Your task to perform on an android device: Clear all items from cart on amazon.com. Search for "logitech g pro" on amazon.com, select the first entry, and add it to the cart. Image 0: 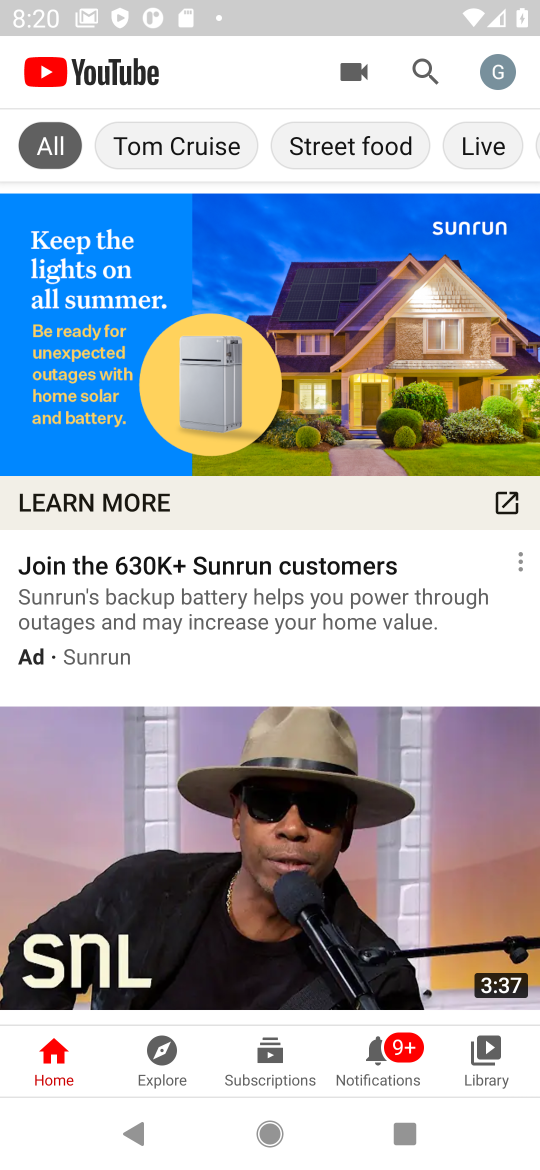
Step 0: press home button
Your task to perform on an android device: Clear all items from cart on amazon.com. Search for "logitech g pro" on amazon.com, select the first entry, and add it to the cart. Image 1: 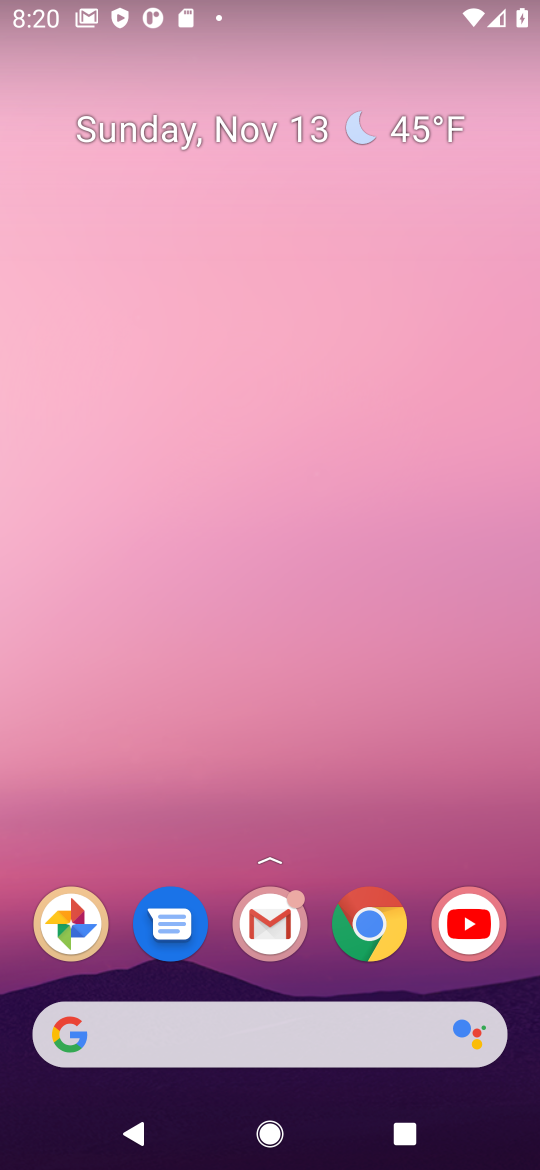
Step 1: click (369, 939)
Your task to perform on an android device: Clear all items from cart on amazon.com. Search for "logitech g pro" on amazon.com, select the first entry, and add it to the cart. Image 2: 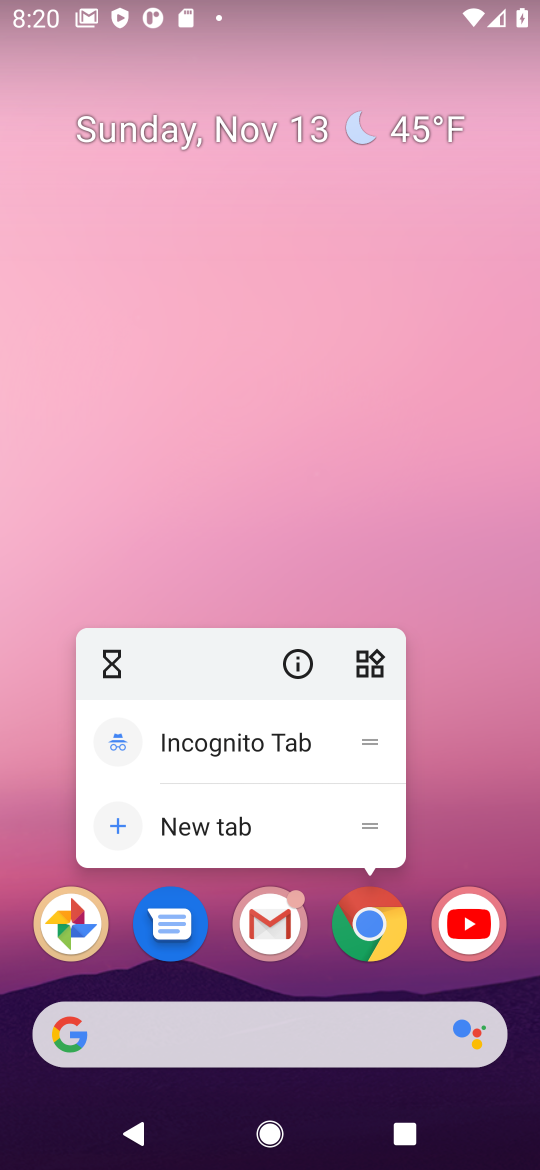
Step 2: click (367, 917)
Your task to perform on an android device: Clear all items from cart on amazon.com. Search for "logitech g pro" on amazon.com, select the first entry, and add it to the cart. Image 3: 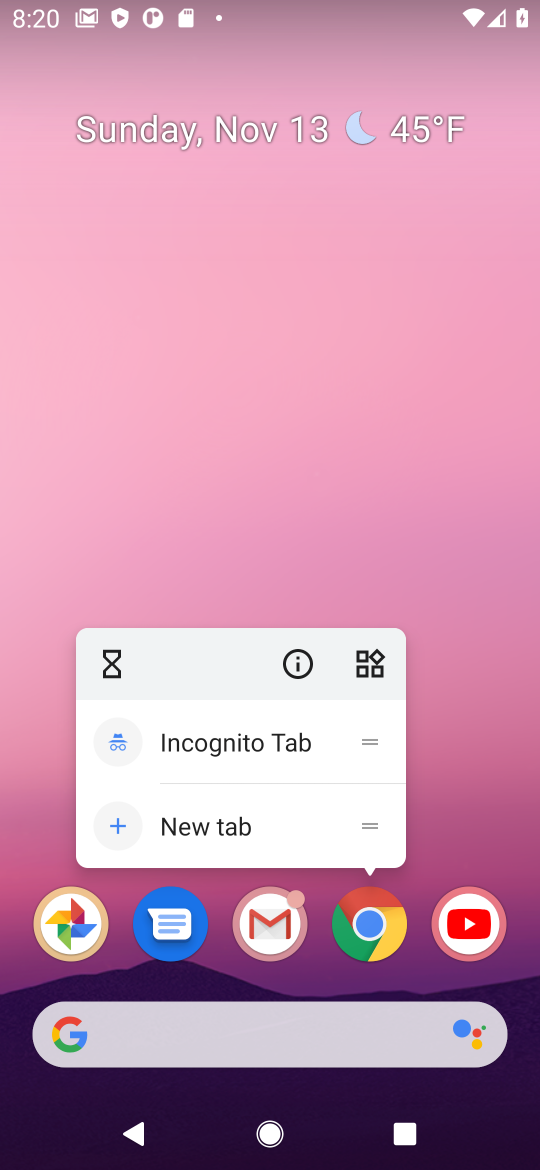
Step 3: click (367, 922)
Your task to perform on an android device: Clear all items from cart on amazon.com. Search for "logitech g pro" on amazon.com, select the first entry, and add it to the cart. Image 4: 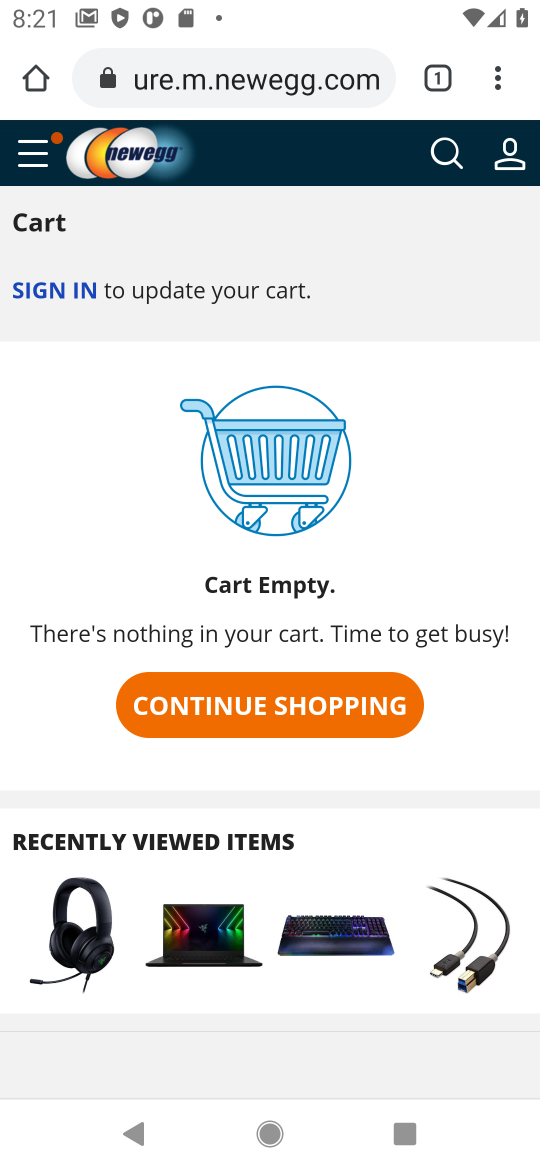
Step 4: click (287, 76)
Your task to perform on an android device: Clear all items from cart on amazon.com. Search for "logitech g pro" on amazon.com, select the first entry, and add it to the cart. Image 5: 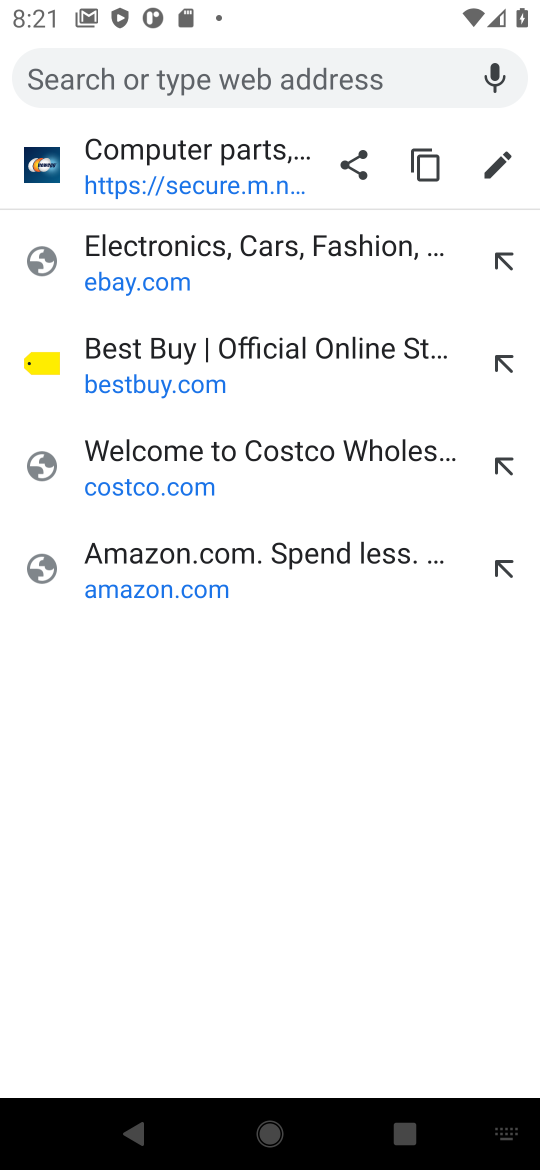
Step 5: type "amazon.com"
Your task to perform on an android device: Clear all items from cart on amazon.com. Search for "logitech g pro" on amazon.com, select the first entry, and add it to the cart. Image 6: 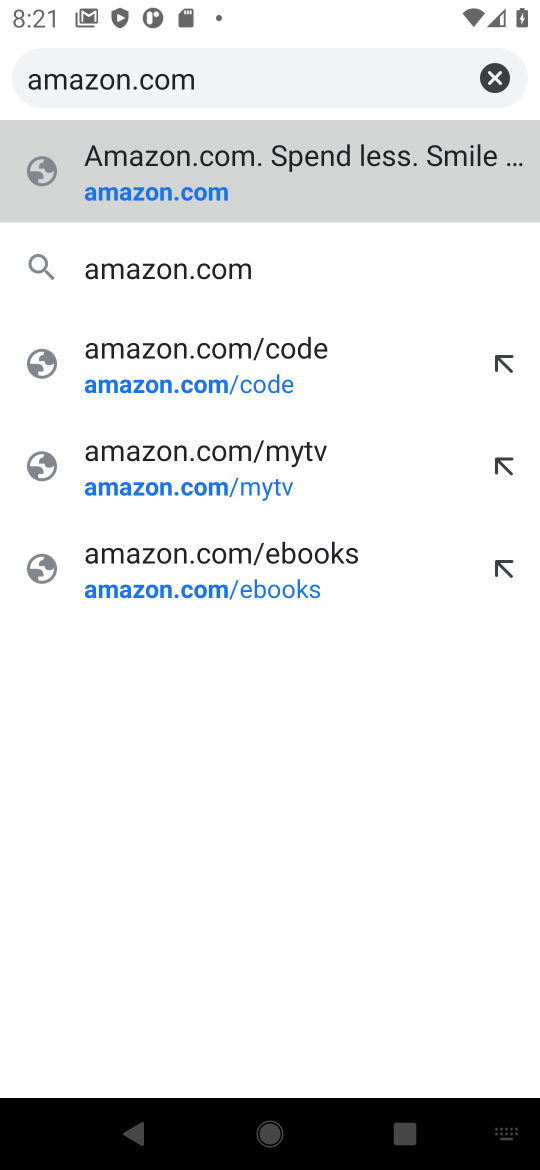
Step 6: press enter
Your task to perform on an android device: Clear all items from cart on amazon.com. Search for "logitech g pro" on amazon.com, select the first entry, and add it to the cart. Image 7: 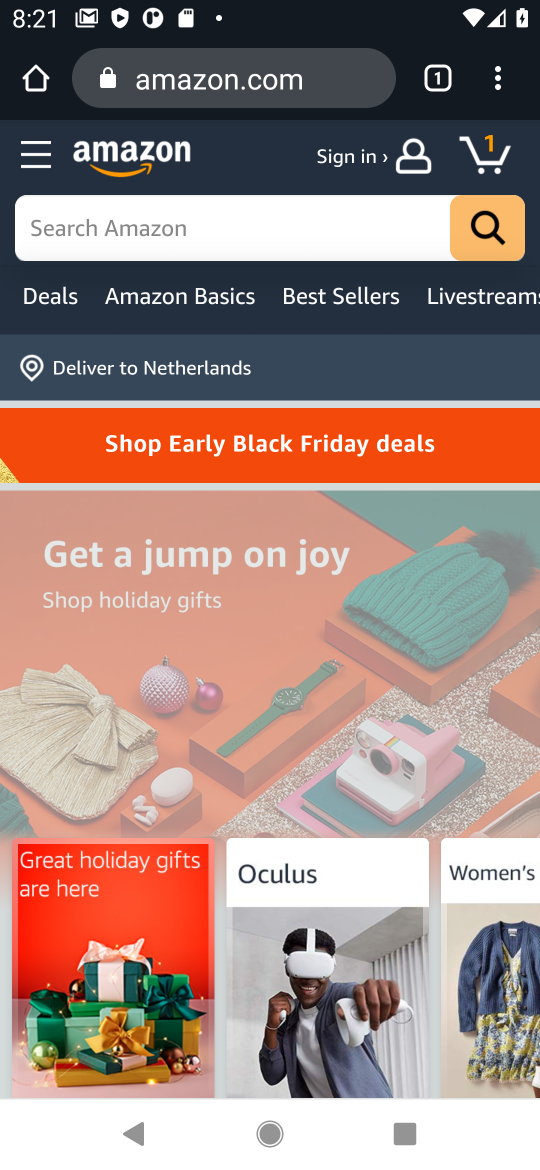
Step 7: click (131, 235)
Your task to perform on an android device: Clear all items from cart on amazon.com. Search for "logitech g pro" on amazon.com, select the first entry, and add it to the cart. Image 8: 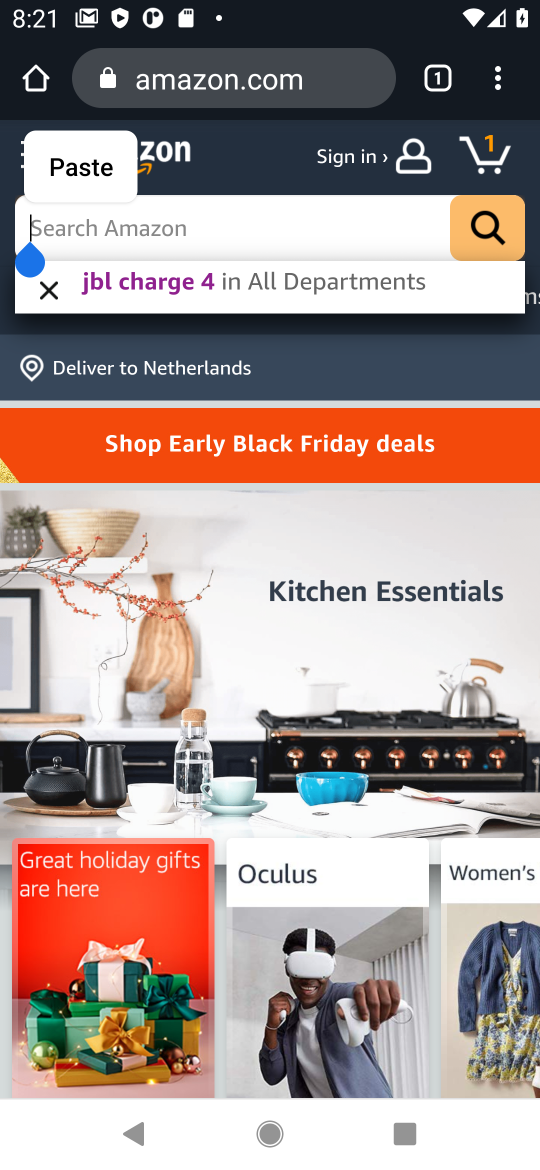
Step 8: press enter
Your task to perform on an android device: Clear all items from cart on amazon.com. Search for "logitech g pro" on amazon.com, select the first entry, and add it to the cart. Image 9: 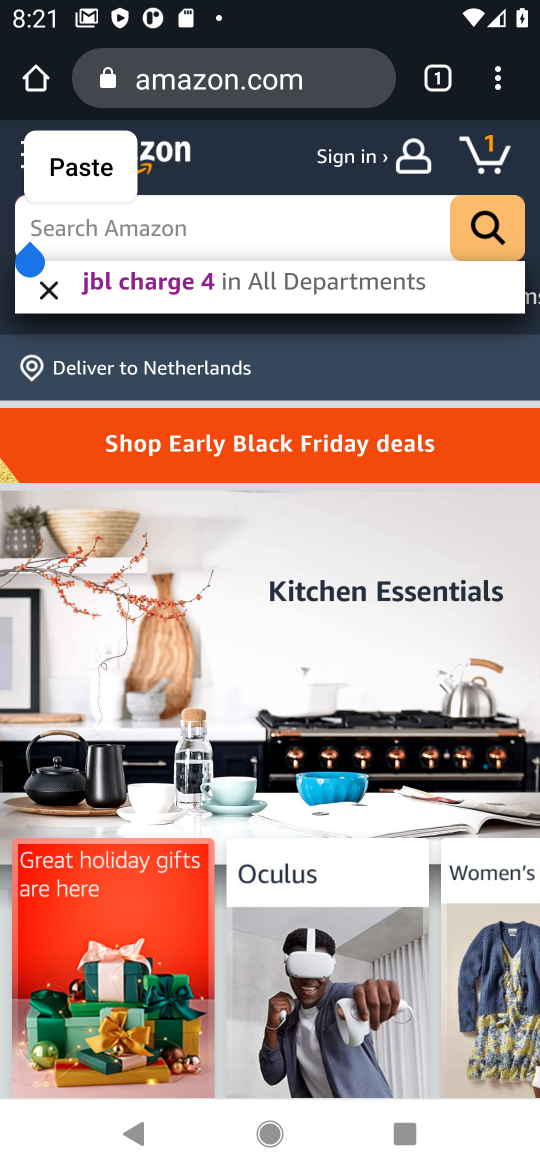
Step 9: type "logitech g pro"
Your task to perform on an android device: Clear all items from cart on amazon.com. Search for "logitech g pro" on amazon.com, select the first entry, and add it to the cart. Image 10: 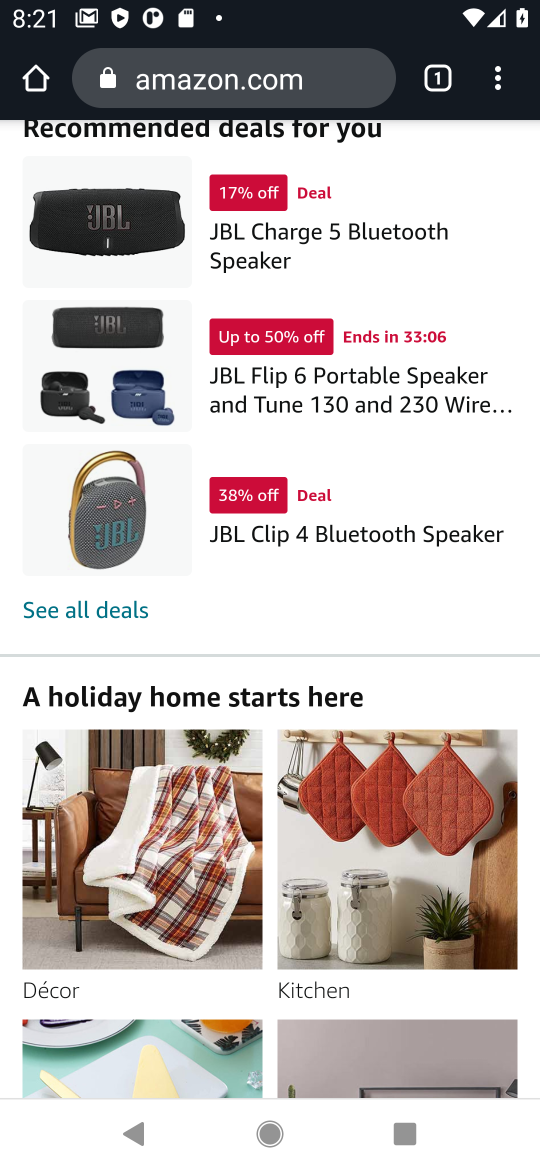
Step 10: drag from (385, 220) to (247, 873)
Your task to perform on an android device: Clear all items from cart on amazon.com. Search for "logitech g pro" on amazon.com, select the first entry, and add it to the cart. Image 11: 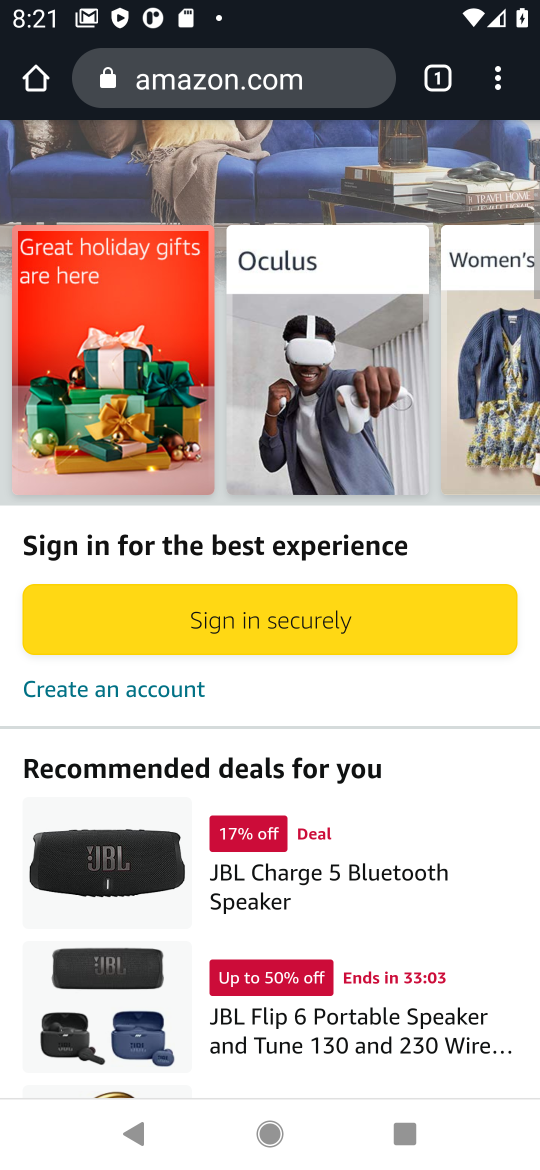
Step 11: drag from (329, 568) to (218, 1031)
Your task to perform on an android device: Clear all items from cart on amazon.com. Search for "logitech g pro" on amazon.com, select the first entry, and add it to the cart. Image 12: 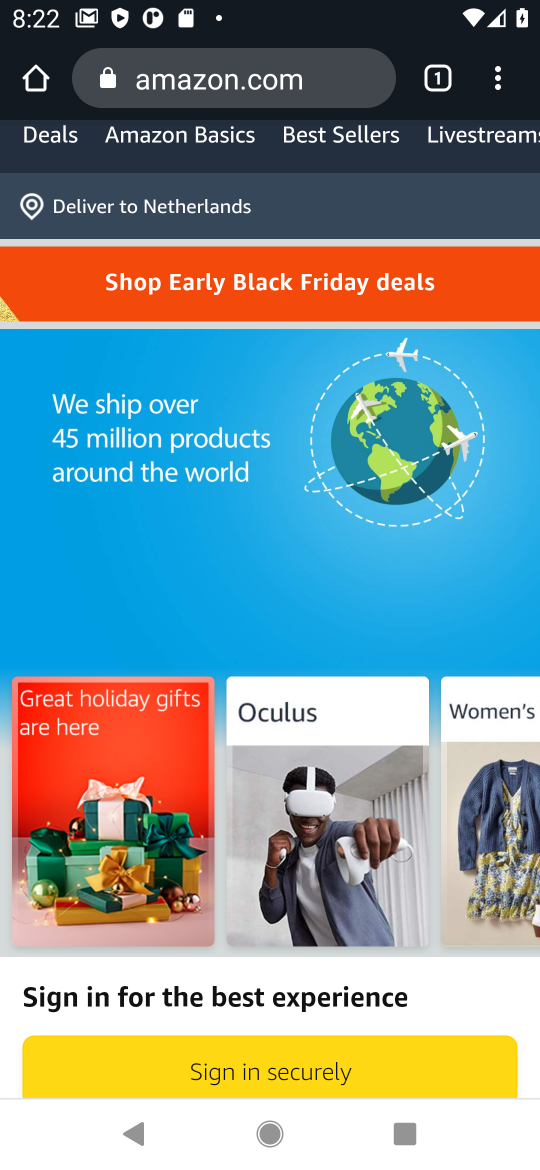
Step 12: drag from (367, 348) to (188, 840)
Your task to perform on an android device: Clear all items from cart on amazon.com. Search for "logitech g pro" on amazon.com, select the first entry, and add it to the cart. Image 13: 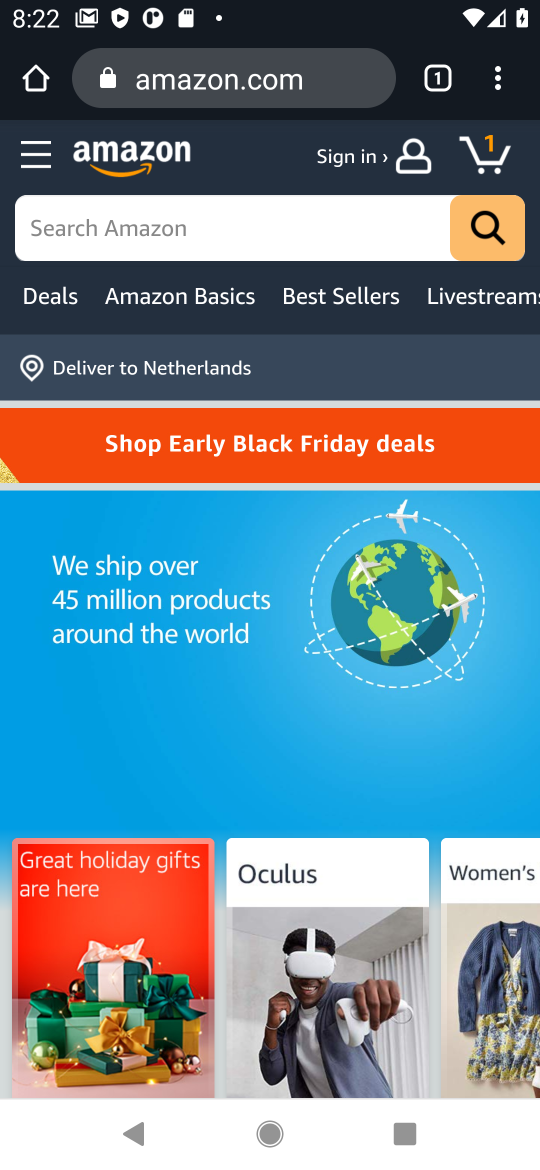
Step 13: click (169, 226)
Your task to perform on an android device: Clear all items from cart on amazon.com. Search for "logitech g pro" on amazon.com, select the first entry, and add it to the cart. Image 14: 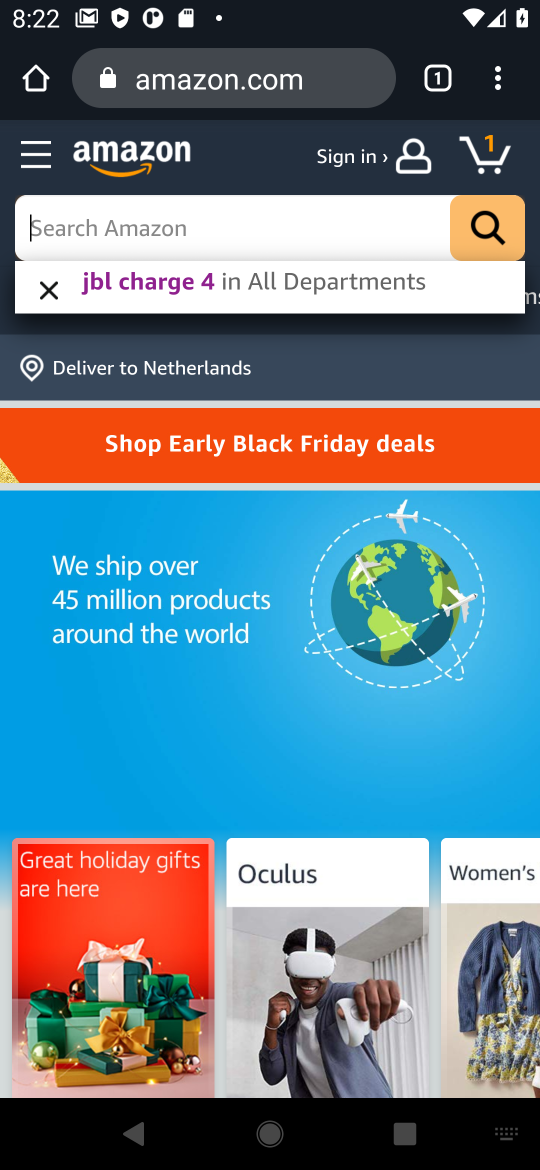
Step 14: type "logitech g pro"
Your task to perform on an android device: Clear all items from cart on amazon.com. Search for "logitech g pro" on amazon.com, select the first entry, and add it to the cart. Image 15: 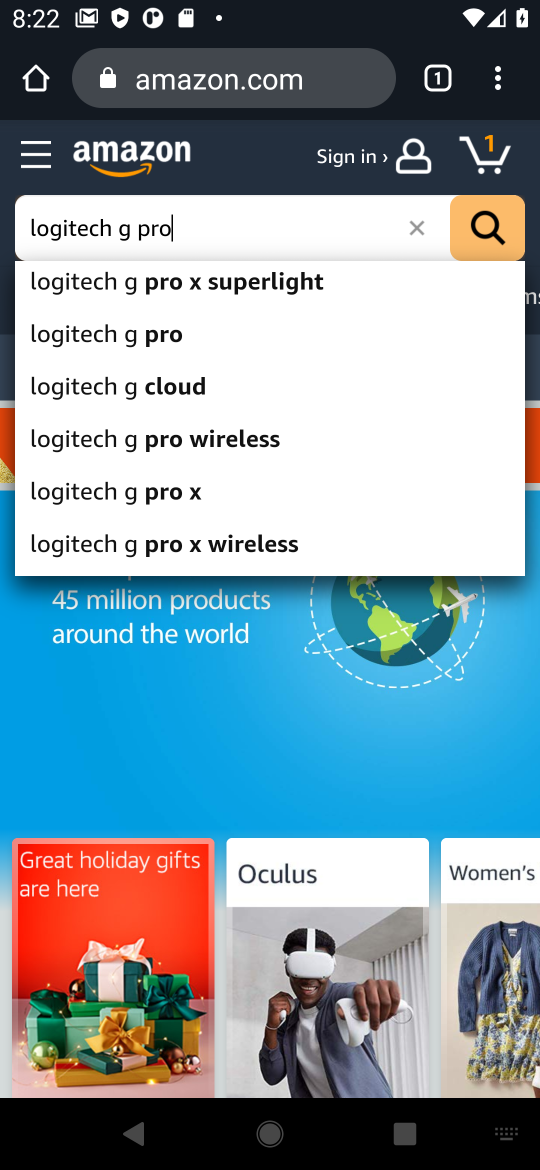
Step 15: press enter
Your task to perform on an android device: Clear all items from cart on amazon.com. Search for "logitech g pro" on amazon.com, select the first entry, and add it to the cart. Image 16: 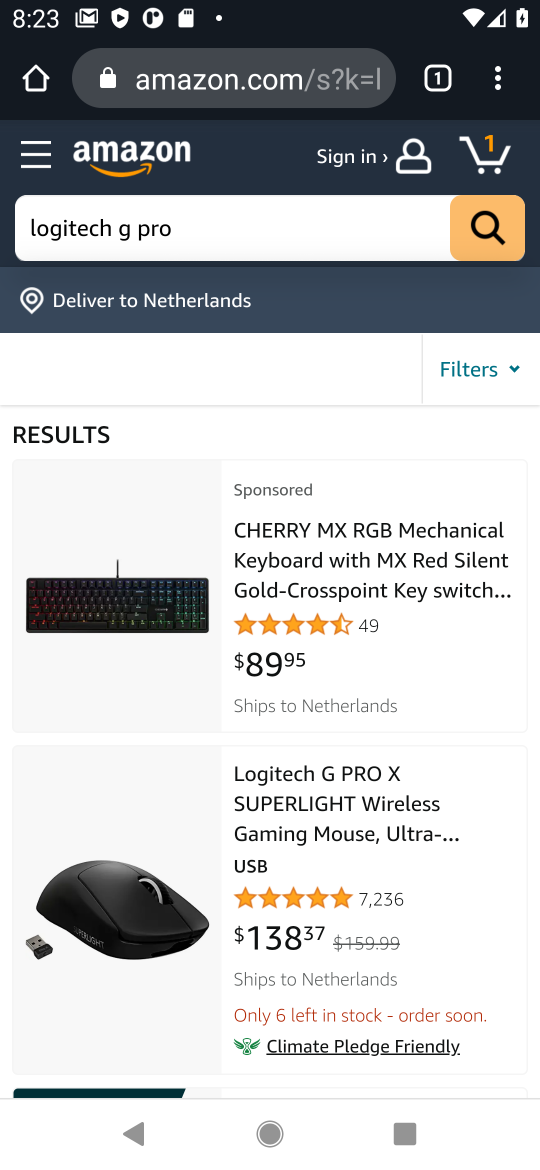
Step 16: task complete